Your task to perform on an android device: set the stopwatch Image 0: 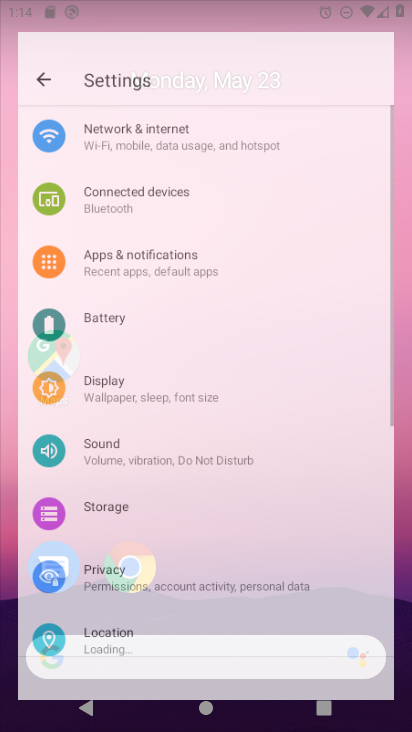
Step 0: click (133, 577)
Your task to perform on an android device: set the stopwatch Image 1: 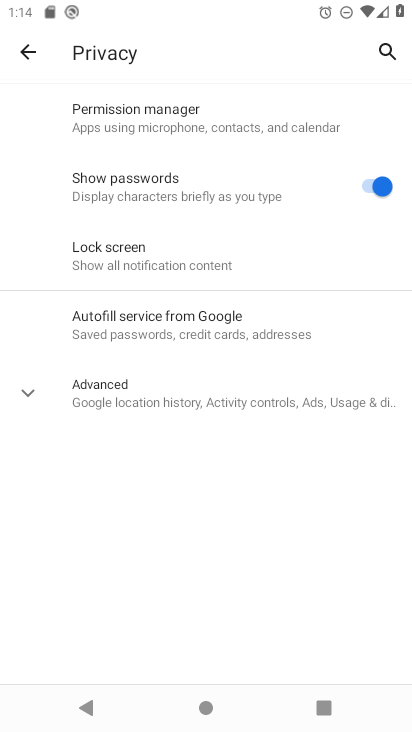
Step 1: press home button
Your task to perform on an android device: set the stopwatch Image 2: 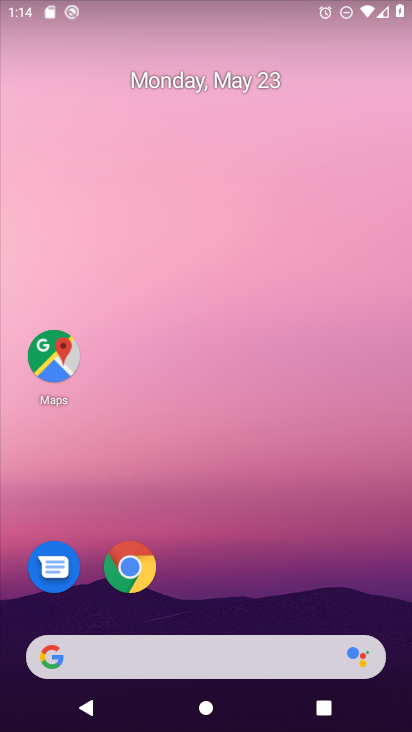
Step 2: drag from (196, 616) to (207, 263)
Your task to perform on an android device: set the stopwatch Image 3: 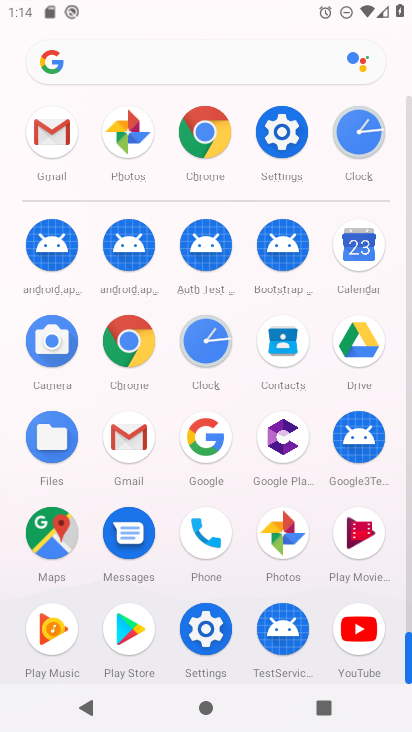
Step 3: click (380, 117)
Your task to perform on an android device: set the stopwatch Image 4: 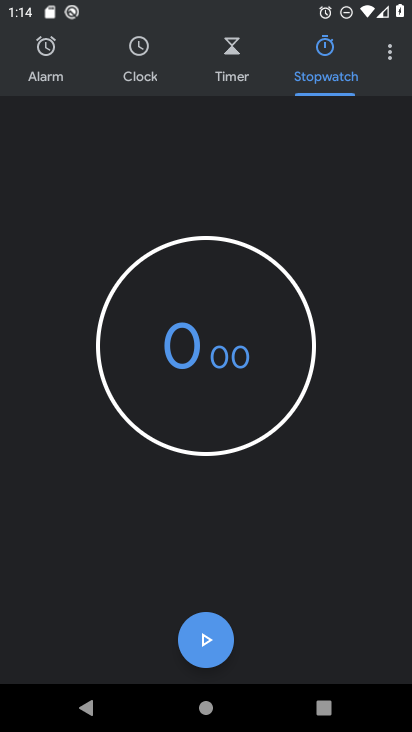
Step 4: click (219, 644)
Your task to perform on an android device: set the stopwatch Image 5: 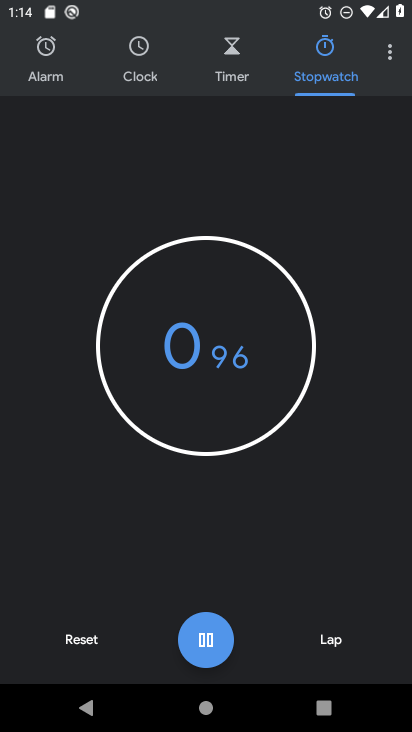
Step 5: task complete